Your task to perform on an android device: Clear the cart on ebay. Search for "dell xps" on ebay, select the first entry, and add it to the cart. Image 0: 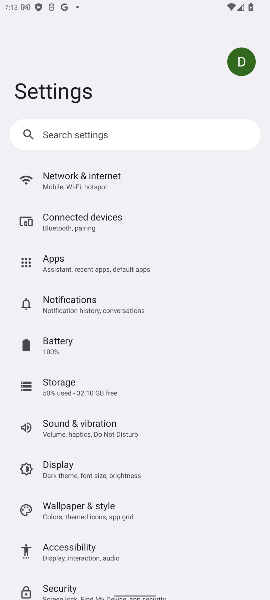
Step 0: press home button
Your task to perform on an android device: Clear the cart on ebay. Search for "dell xps" on ebay, select the first entry, and add it to the cart. Image 1: 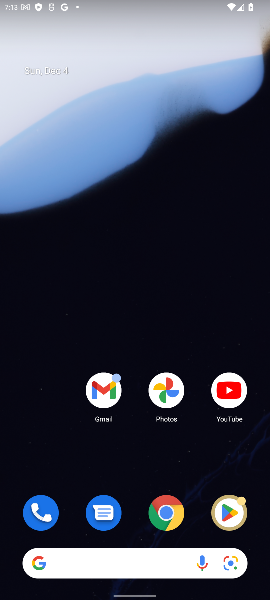
Step 1: click (163, 512)
Your task to perform on an android device: Clear the cart on ebay. Search for "dell xps" on ebay, select the first entry, and add it to the cart. Image 2: 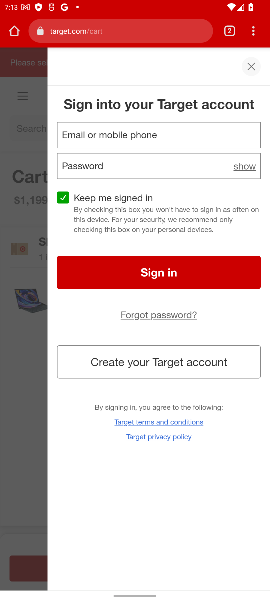
Step 2: click (227, 38)
Your task to perform on an android device: Clear the cart on ebay. Search for "dell xps" on ebay, select the first entry, and add it to the cart. Image 3: 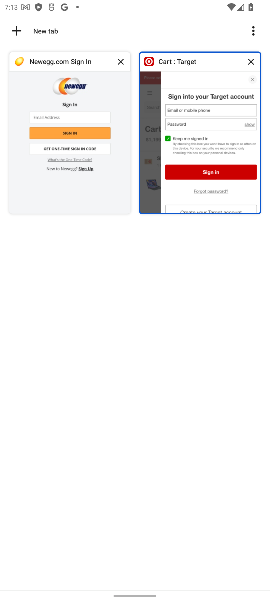
Step 3: click (18, 27)
Your task to perform on an android device: Clear the cart on ebay. Search for "dell xps" on ebay, select the first entry, and add it to the cart. Image 4: 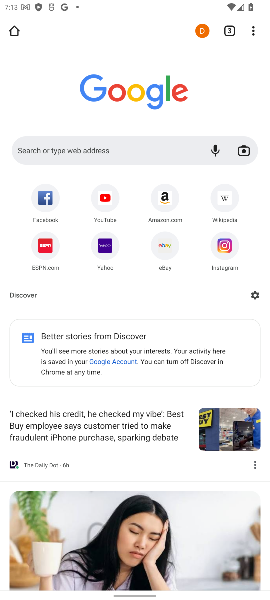
Step 4: click (161, 254)
Your task to perform on an android device: Clear the cart on ebay. Search for "dell xps" on ebay, select the first entry, and add it to the cart. Image 5: 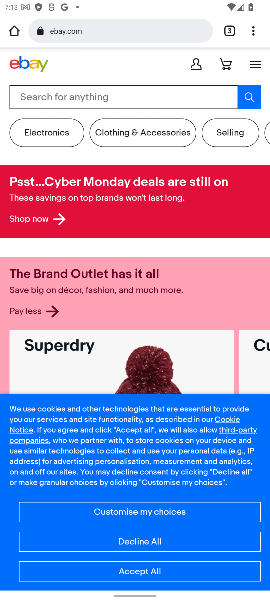
Step 5: click (130, 544)
Your task to perform on an android device: Clear the cart on ebay. Search for "dell xps" on ebay, select the first entry, and add it to the cart. Image 6: 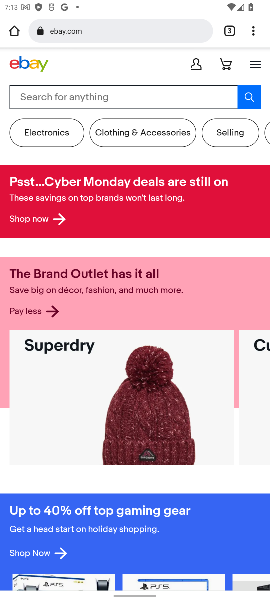
Step 6: click (130, 91)
Your task to perform on an android device: Clear the cart on ebay. Search for "dell xps" on ebay, select the first entry, and add it to the cart. Image 7: 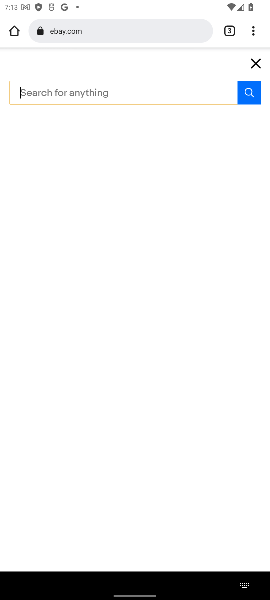
Step 7: type "dell xps"
Your task to perform on an android device: Clear the cart on ebay. Search for "dell xps" on ebay, select the first entry, and add it to the cart. Image 8: 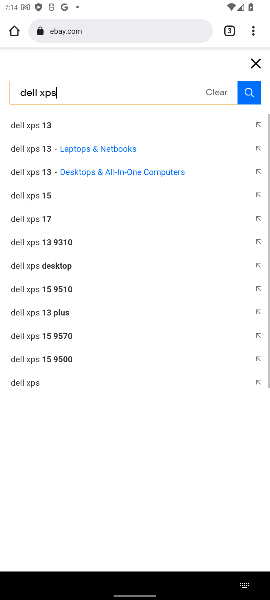
Step 8: click (34, 149)
Your task to perform on an android device: Clear the cart on ebay. Search for "dell xps" on ebay, select the first entry, and add it to the cart. Image 9: 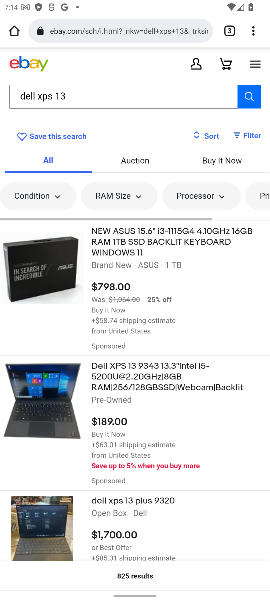
Step 9: click (121, 385)
Your task to perform on an android device: Clear the cart on ebay. Search for "dell xps" on ebay, select the first entry, and add it to the cart. Image 10: 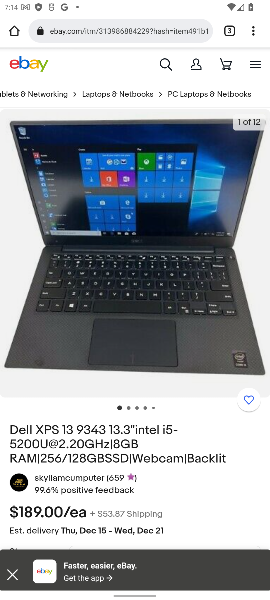
Step 10: drag from (171, 472) to (263, 156)
Your task to perform on an android device: Clear the cart on ebay. Search for "dell xps" on ebay, select the first entry, and add it to the cart. Image 11: 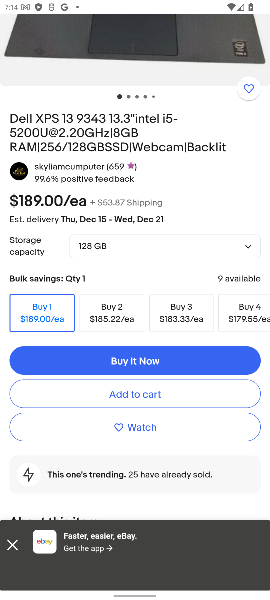
Step 11: click (125, 394)
Your task to perform on an android device: Clear the cart on ebay. Search for "dell xps" on ebay, select the first entry, and add it to the cart. Image 12: 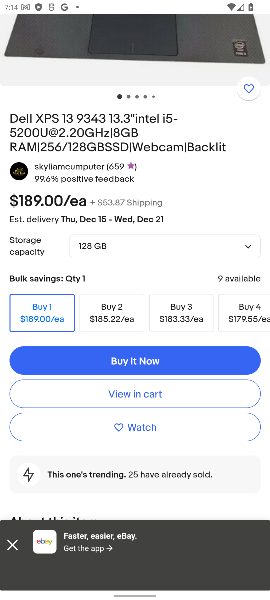
Step 12: task complete